Your task to perform on an android device: change the clock display to analog Image 0: 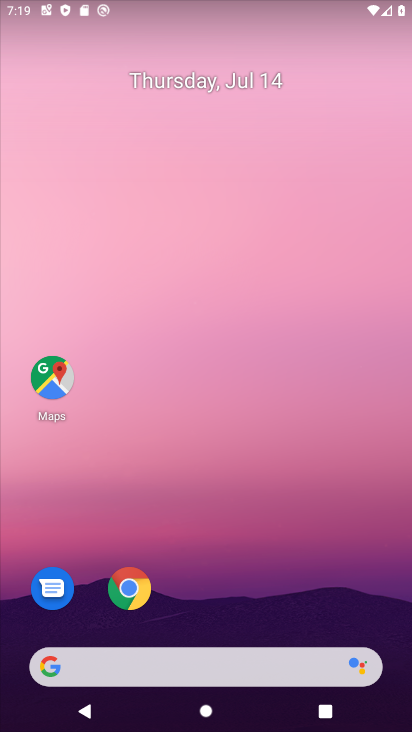
Step 0: drag from (391, 625) to (228, 53)
Your task to perform on an android device: change the clock display to analog Image 1: 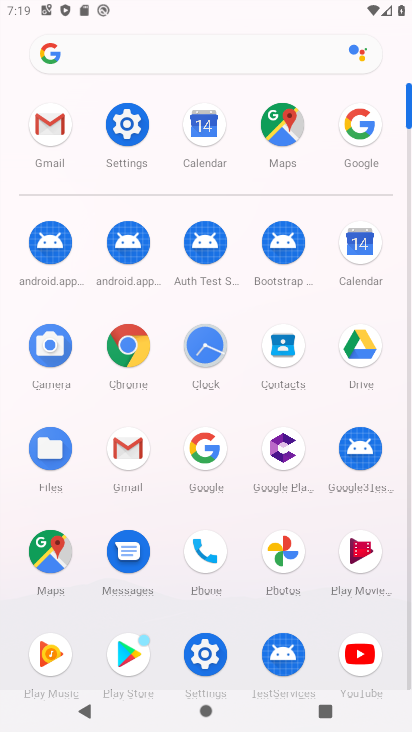
Step 1: click (203, 345)
Your task to perform on an android device: change the clock display to analog Image 2: 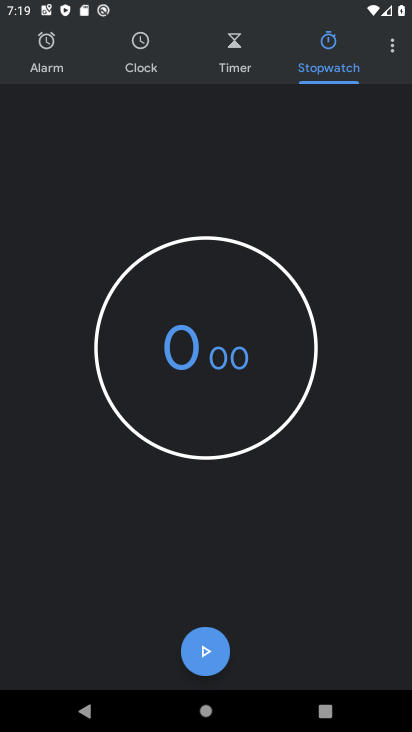
Step 2: click (395, 52)
Your task to perform on an android device: change the clock display to analog Image 3: 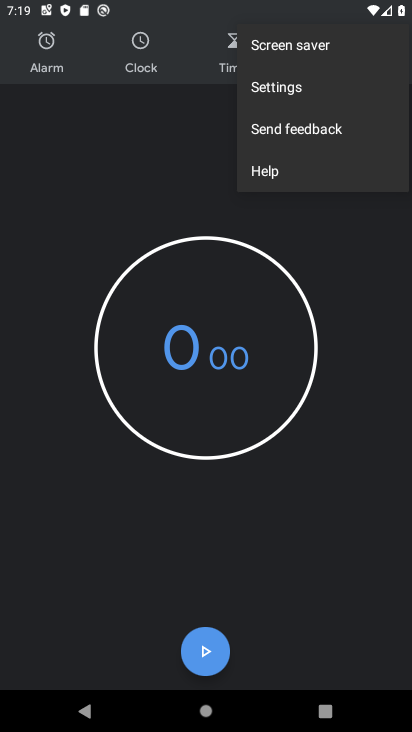
Step 3: click (280, 97)
Your task to perform on an android device: change the clock display to analog Image 4: 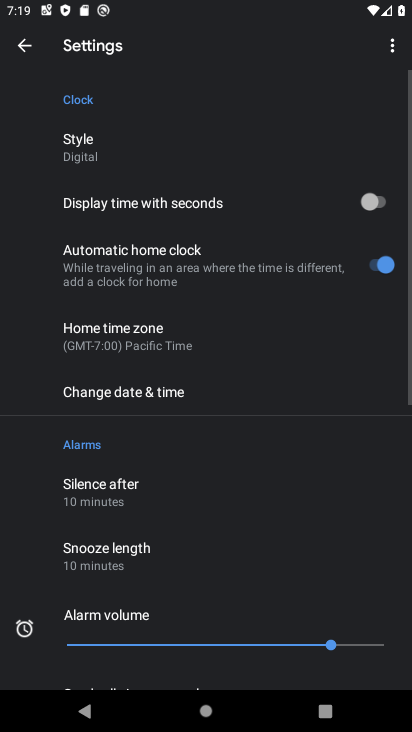
Step 4: click (53, 142)
Your task to perform on an android device: change the clock display to analog Image 5: 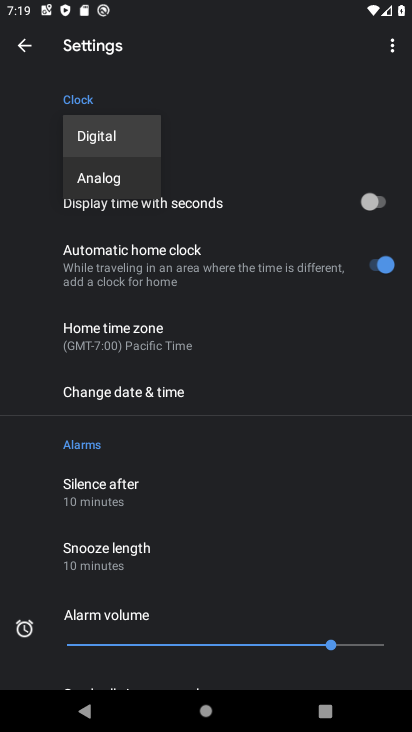
Step 5: click (98, 184)
Your task to perform on an android device: change the clock display to analog Image 6: 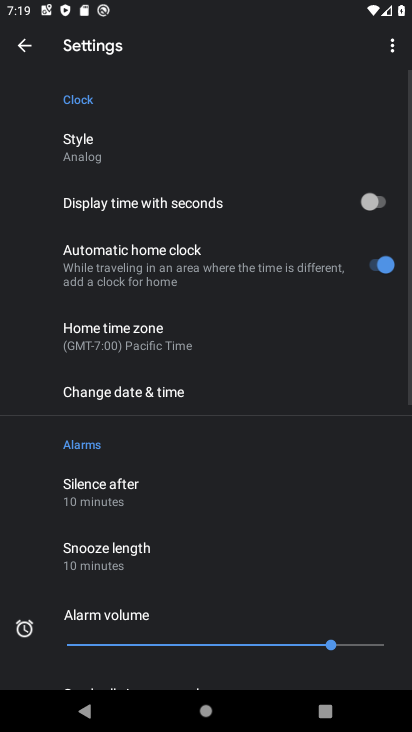
Step 6: task complete